Your task to perform on an android device: open chrome and create a bookmark for the current page Image 0: 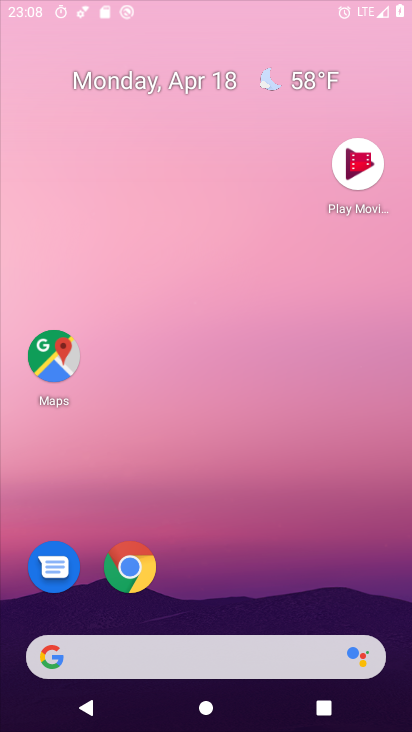
Step 0: drag from (317, 40) to (262, 0)
Your task to perform on an android device: open chrome and create a bookmark for the current page Image 1: 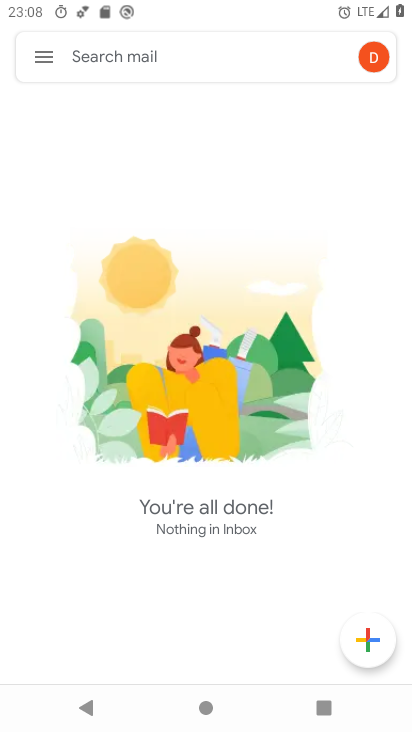
Step 1: press home button
Your task to perform on an android device: open chrome and create a bookmark for the current page Image 2: 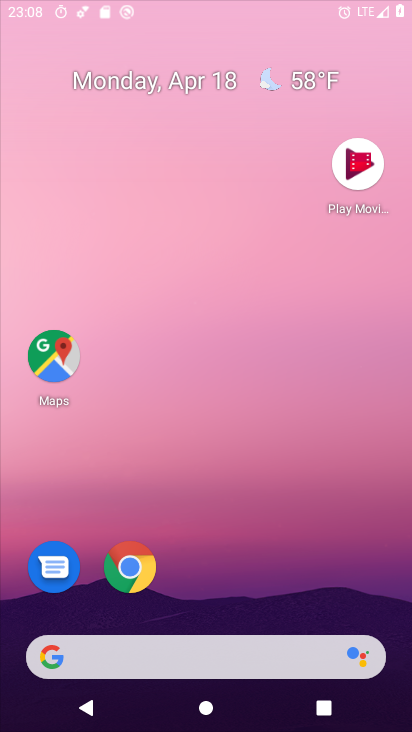
Step 2: drag from (237, 297) to (232, 83)
Your task to perform on an android device: open chrome and create a bookmark for the current page Image 3: 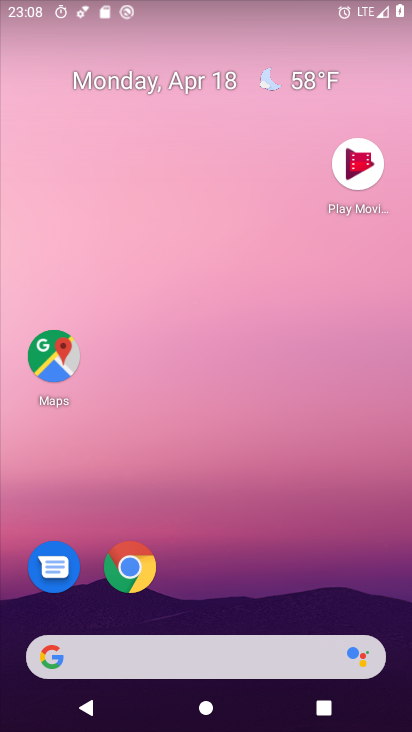
Step 3: drag from (224, 592) to (307, 0)
Your task to perform on an android device: open chrome and create a bookmark for the current page Image 4: 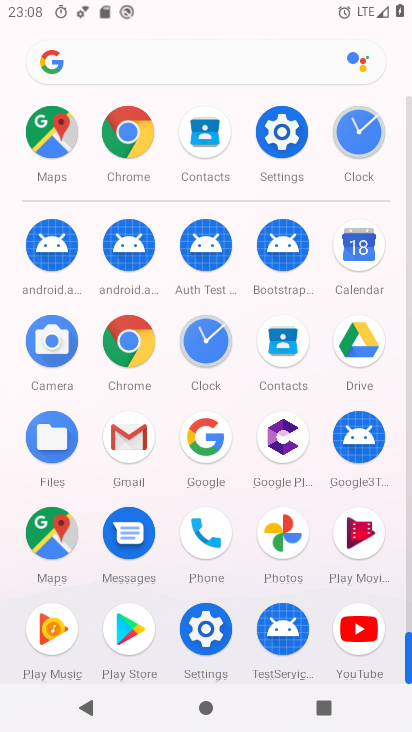
Step 4: click (132, 350)
Your task to perform on an android device: open chrome and create a bookmark for the current page Image 5: 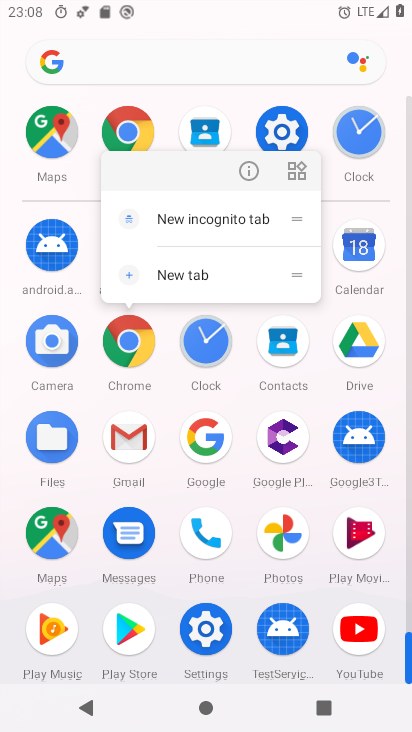
Step 5: click (249, 182)
Your task to perform on an android device: open chrome and create a bookmark for the current page Image 6: 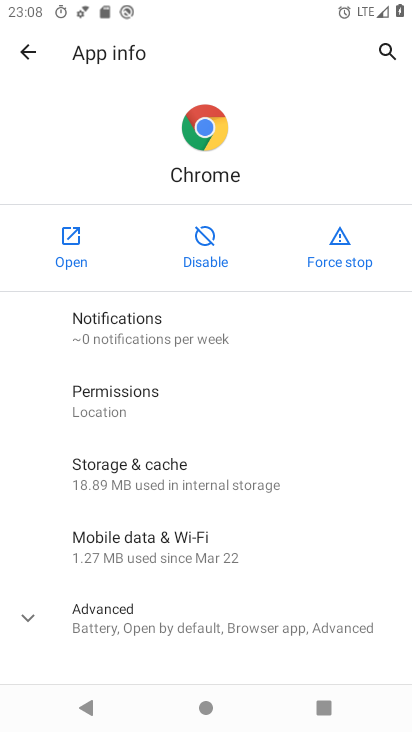
Step 6: click (76, 244)
Your task to perform on an android device: open chrome and create a bookmark for the current page Image 7: 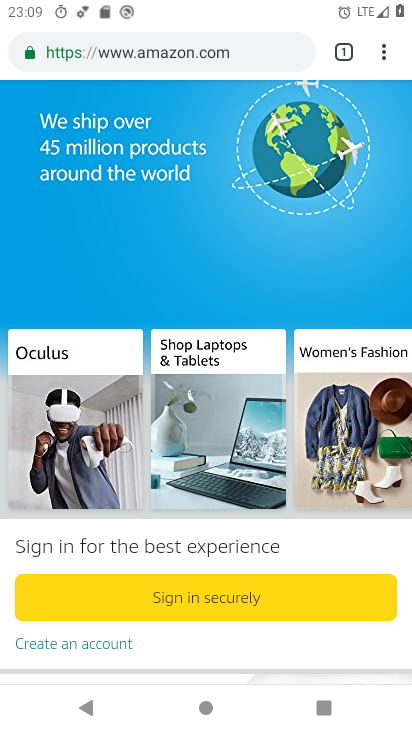
Step 7: drag from (222, 559) to (316, 8)
Your task to perform on an android device: open chrome and create a bookmark for the current page Image 8: 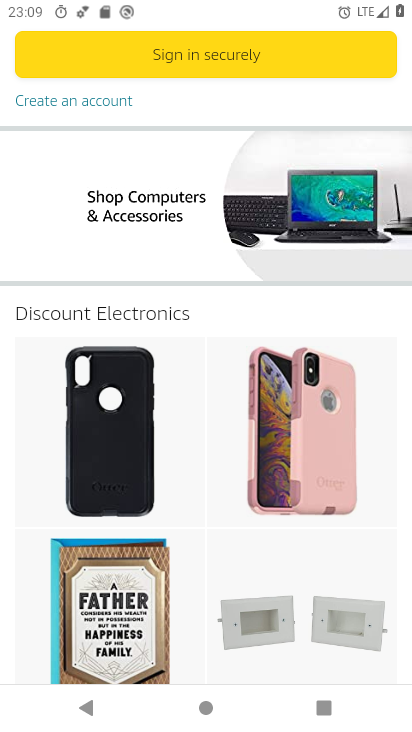
Step 8: drag from (209, 114) to (388, 721)
Your task to perform on an android device: open chrome and create a bookmark for the current page Image 9: 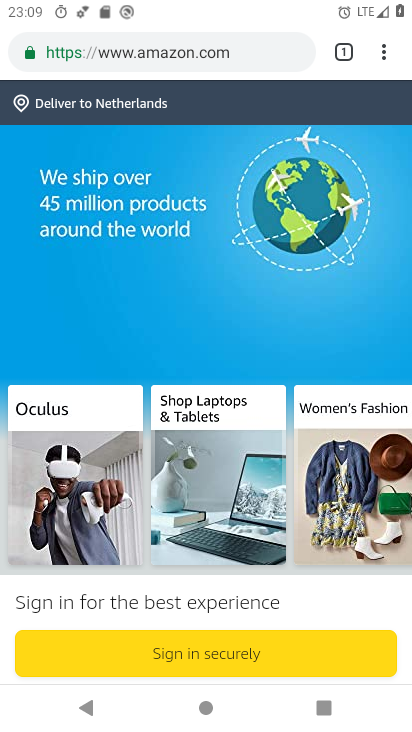
Step 9: click (386, 50)
Your task to perform on an android device: open chrome and create a bookmark for the current page Image 10: 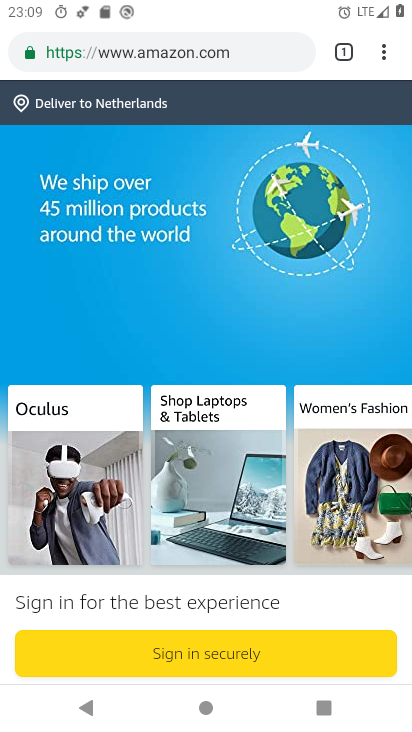
Step 10: click (386, 54)
Your task to perform on an android device: open chrome and create a bookmark for the current page Image 11: 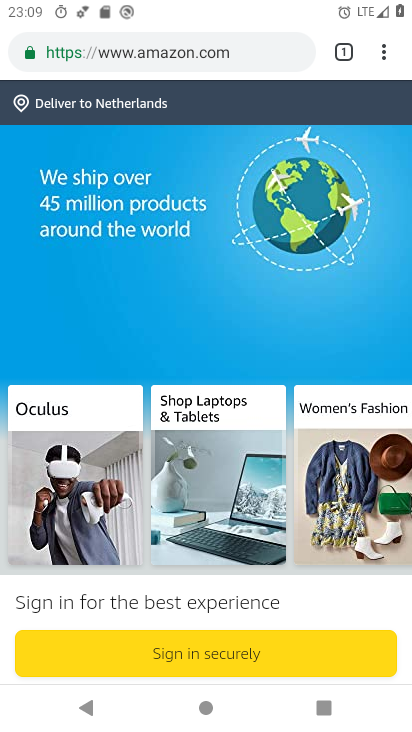
Step 11: drag from (384, 46) to (264, 262)
Your task to perform on an android device: open chrome and create a bookmark for the current page Image 12: 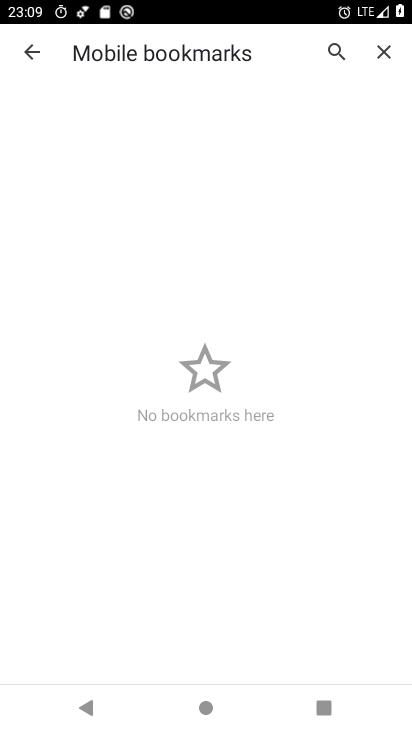
Step 12: drag from (267, 314) to (278, 267)
Your task to perform on an android device: open chrome and create a bookmark for the current page Image 13: 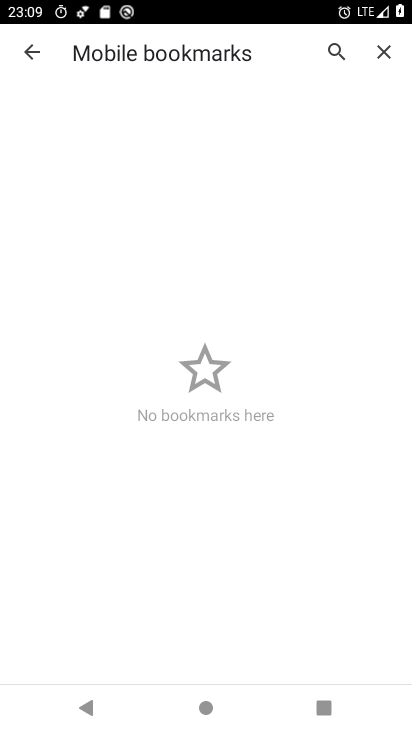
Step 13: drag from (281, 542) to (307, 284)
Your task to perform on an android device: open chrome and create a bookmark for the current page Image 14: 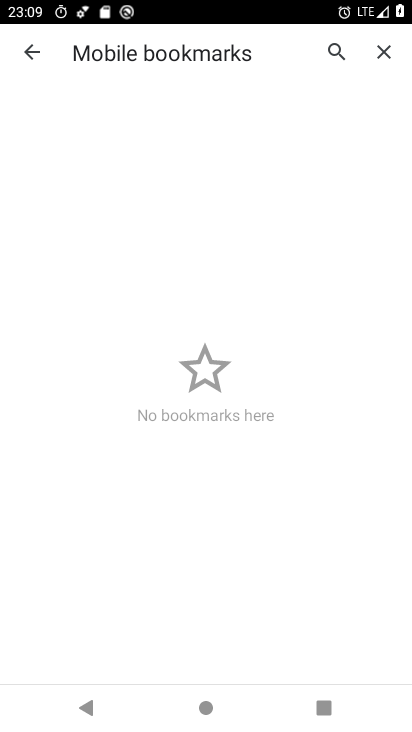
Step 14: drag from (304, 439) to (236, 521)
Your task to perform on an android device: open chrome and create a bookmark for the current page Image 15: 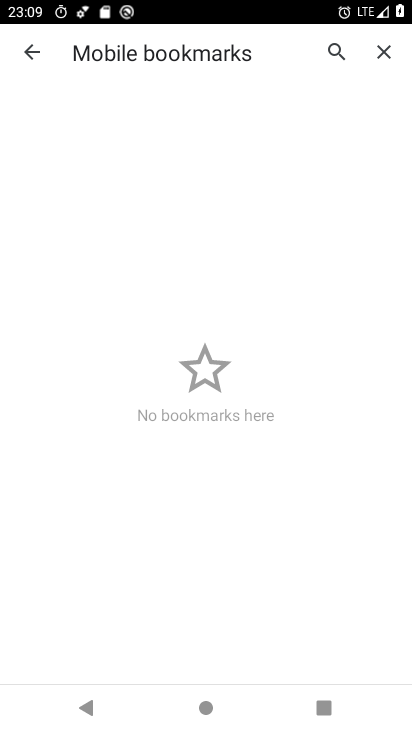
Step 15: click (381, 64)
Your task to perform on an android device: open chrome and create a bookmark for the current page Image 16: 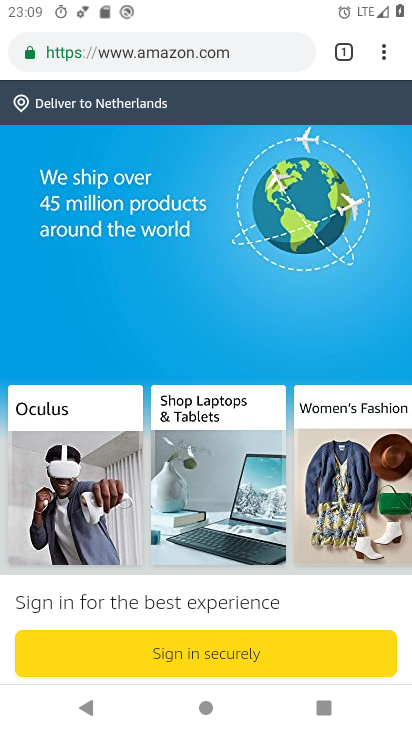
Step 16: drag from (384, 52) to (224, 50)
Your task to perform on an android device: open chrome and create a bookmark for the current page Image 17: 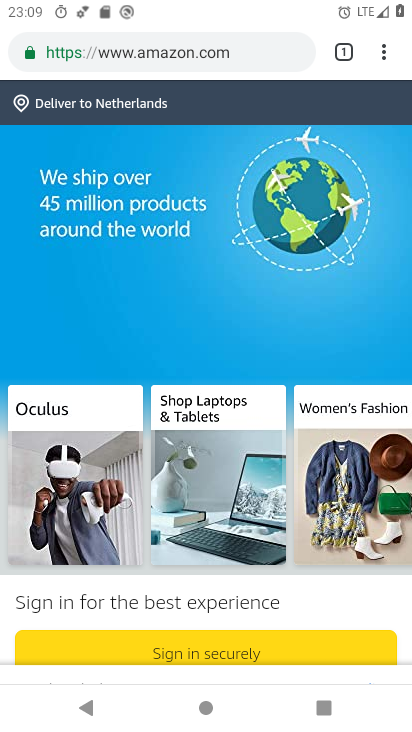
Step 17: click (224, 50)
Your task to perform on an android device: open chrome and create a bookmark for the current page Image 18: 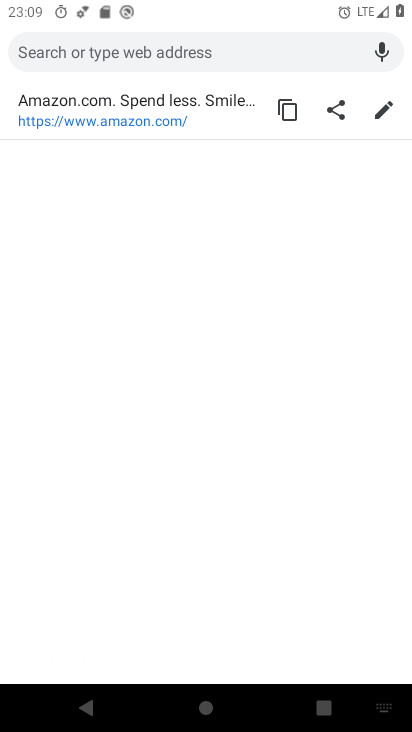
Step 18: task complete